Your task to perform on an android device: What's on my calendar today? Image 0: 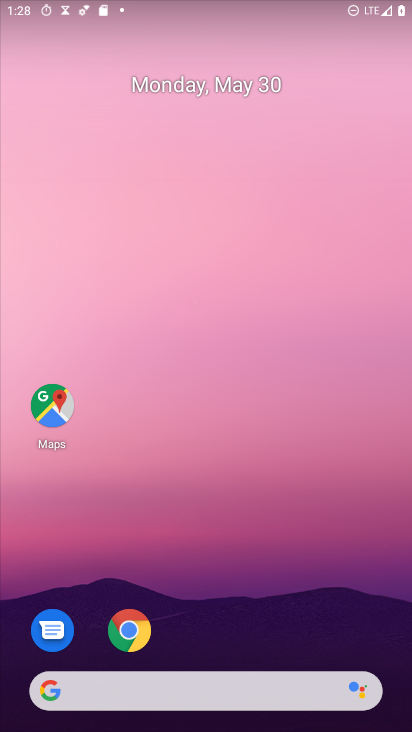
Step 0: drag from (316, 688) to (279, 164)
Your task to perform on an android device: What's on my calendar today? Image 1: 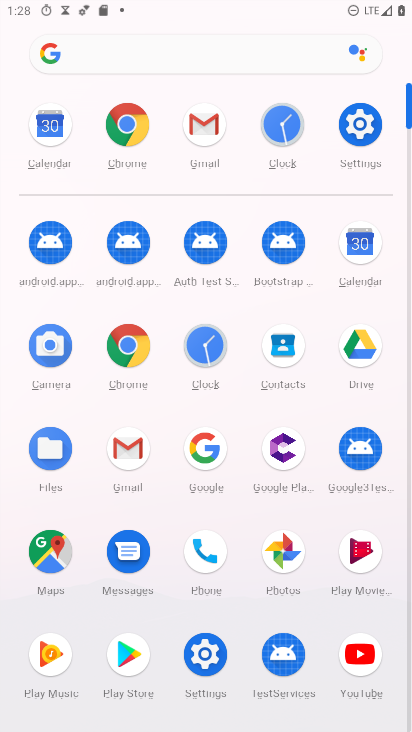
Step 1: click (358, 250)
Your task to perform on an android device: What's on my calendar today? Image 2: 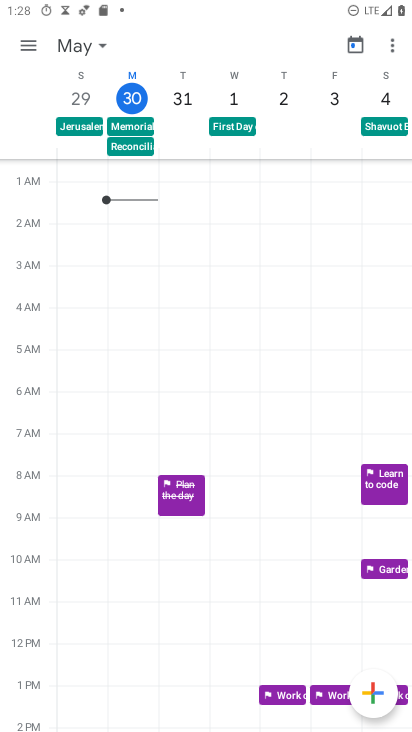
Step 2: click (31, 42)
Your task to perform on an android device: What's on my calendar today? Image 3: 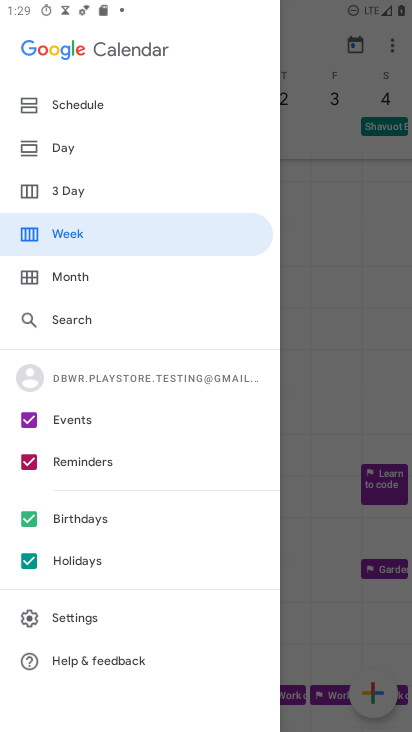
Step 3: click (93, 109)
Your task to perform on an android device: What's on my calendar today? Image 4: 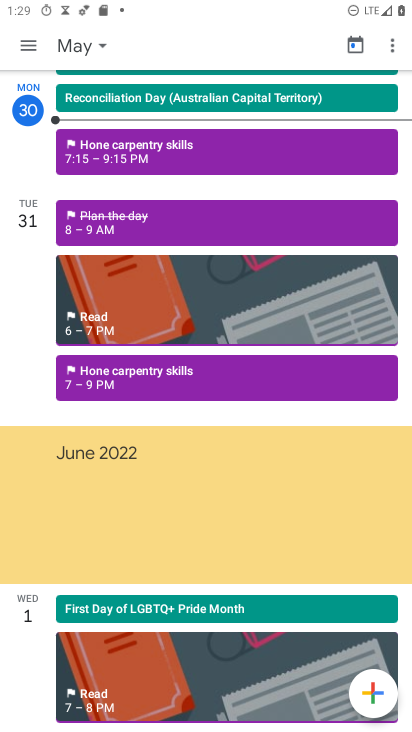
Step 4: task complete